Your task to perform on an android device: delete a single message in the gmail app Image 0: 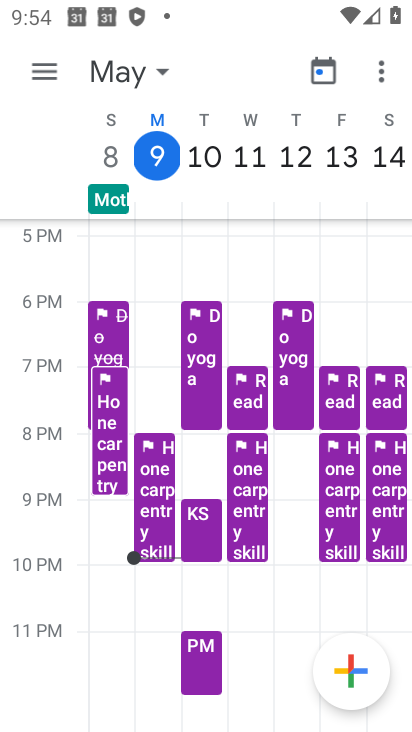
Step 0: press home button
Your task to perform on an android device: delete a single message in the gmail app Image 1: 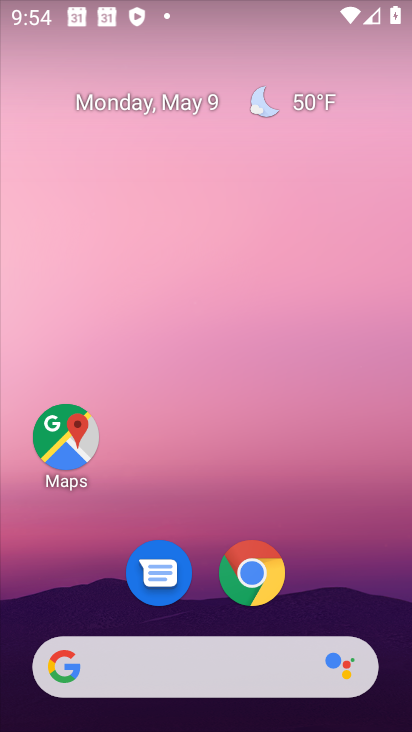
Step 1: drag from (346, 611) to (318, 170)
Your task to perform on an android device: delete a single message in the gmail app Image 2: 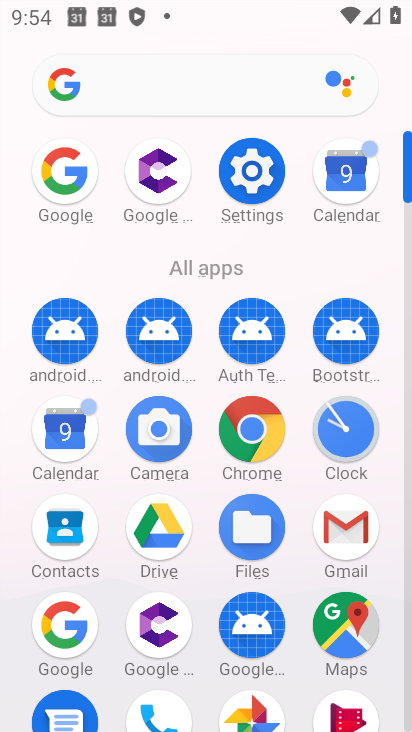
Step 2: click (353, 514)
Your task to perform on an android device: delete a single message in the gmail app Image 3: 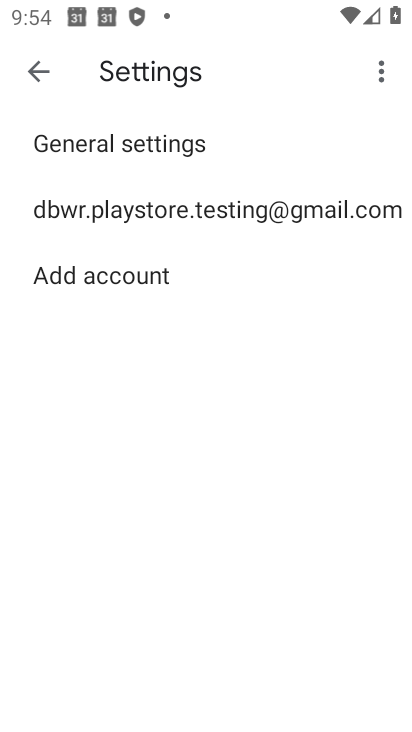
Step 3: click (285, 224)
Your task to perform on an android device: delete a single message in the gmail app Image 4: 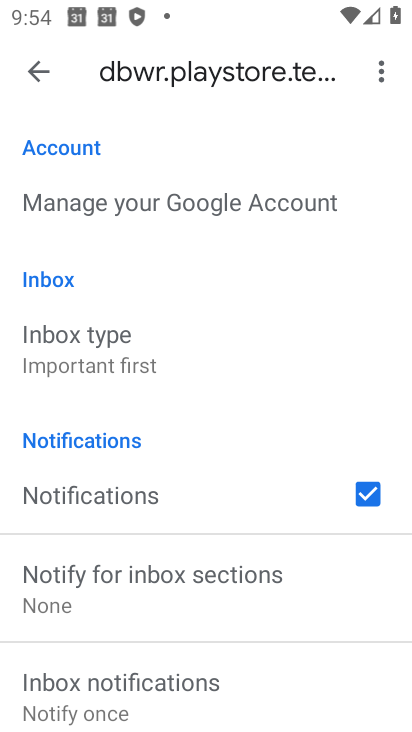
Step 4: click (26, 68)
Your task to perform on an android device: delete a single message in the gmail app Image 5: 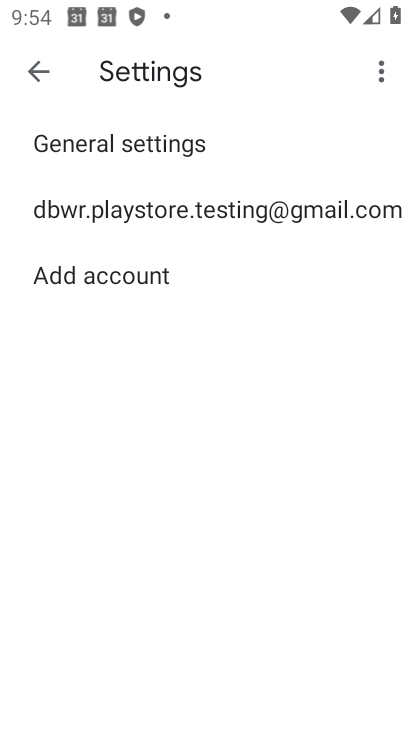
Step 5: click (26, 68)
Your task to perform on an android device: delete a single message in the gmail app Image 6: 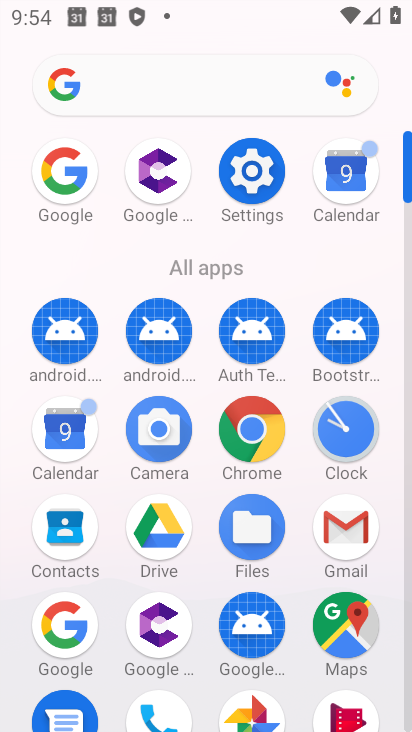
Step 6: click (354, 532)
Your task to perform on an android device: delete a single message in the gmail app Image 7: 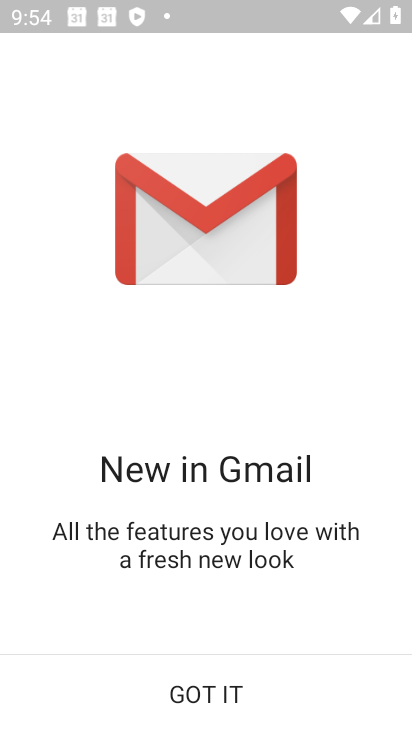
Step 7: click (169, 702)
Your task to perform on an android device: delete a single message in the gmail app Image 8: 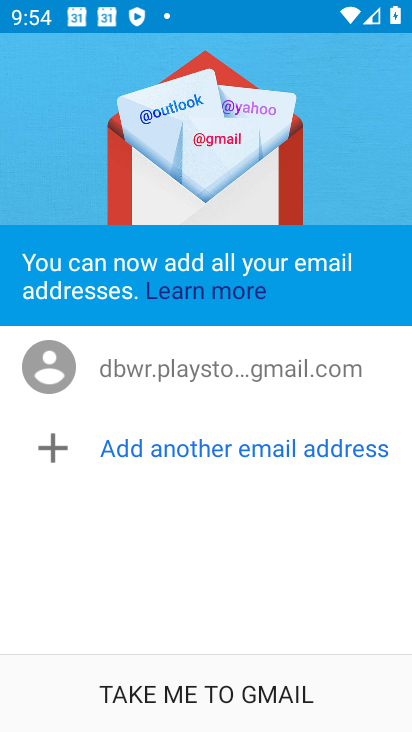
Step 8: click (169, 696)
Your task to perform on an android device: delete a single message in the gmail app Image 9: 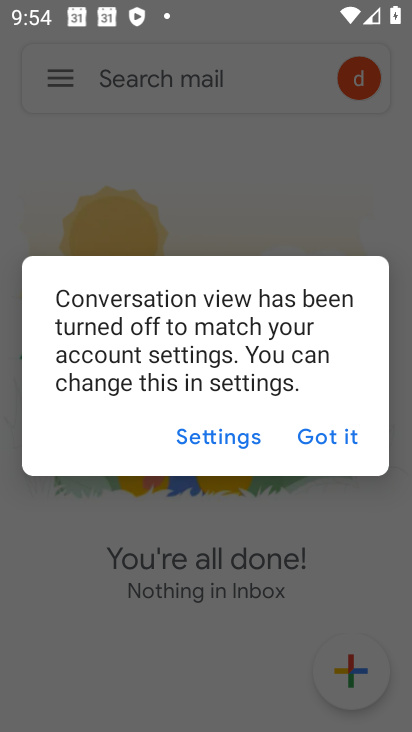
Step 9: click (328, 434)
Your task to perform on an android device: delete a single message in the gmail app Image 10: 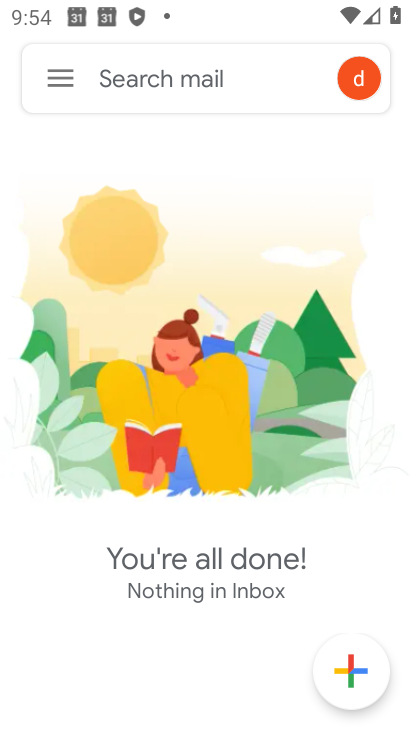
Step 10: click (24, 84)
Your task to perform on an android device: delete a single message in the gmail app Image 11: 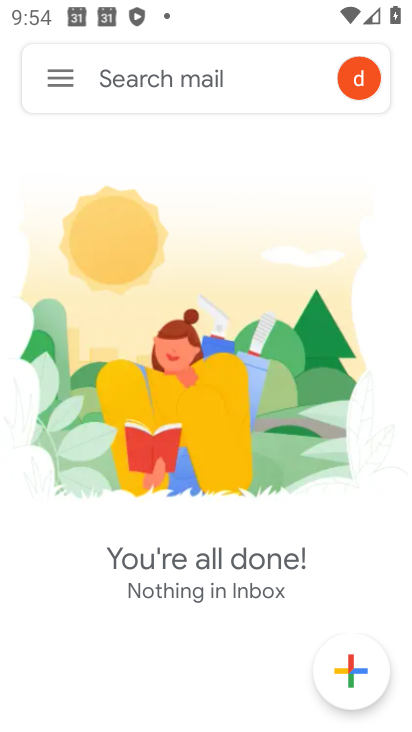
Step 11: click (45, 70)
Your task to perform on an android device: delete a single message in the gmail app Image 12: 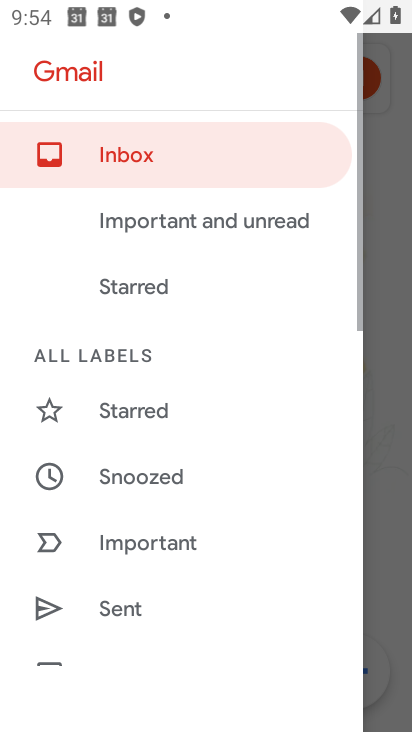
Step 12: drag from (176, 597) to (236, 197)
Your task to perform on an android device: delete a single message in the gmail app Image 13: 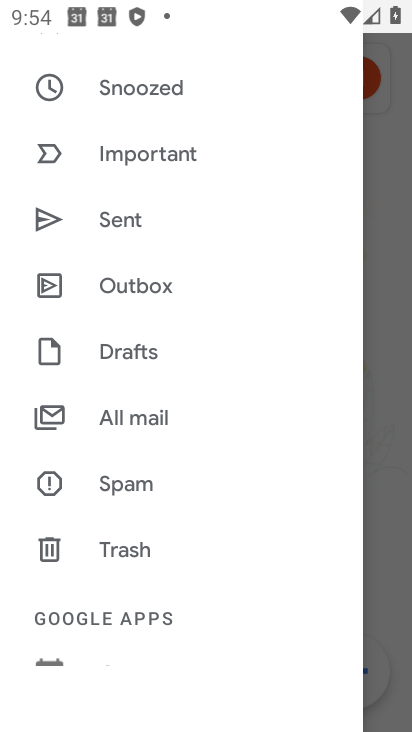
Step 13: click (138, 409)
Your task to perform on an android device: delete a single message in the gmail app Image 14: 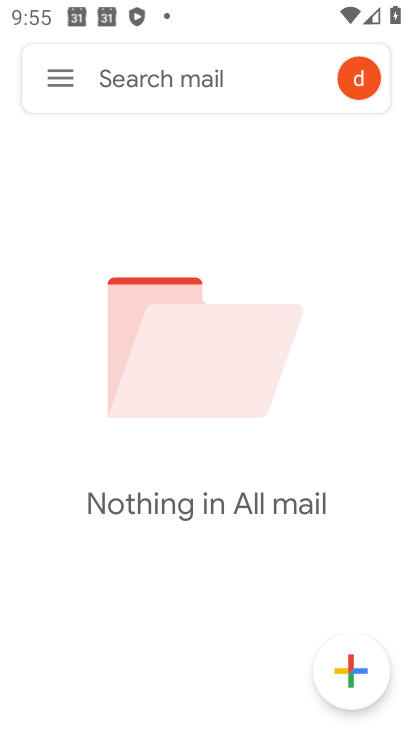
Step 14: task complete